Your task to perform on an android device: manage bookmarks in the chrome app Image 0: 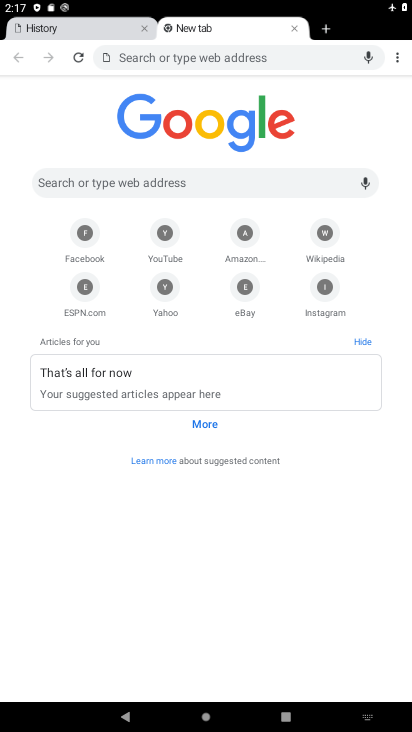
Step 0: press home button
Your task to perform on an android device: manage bookmarks in the chrome app Image 1: 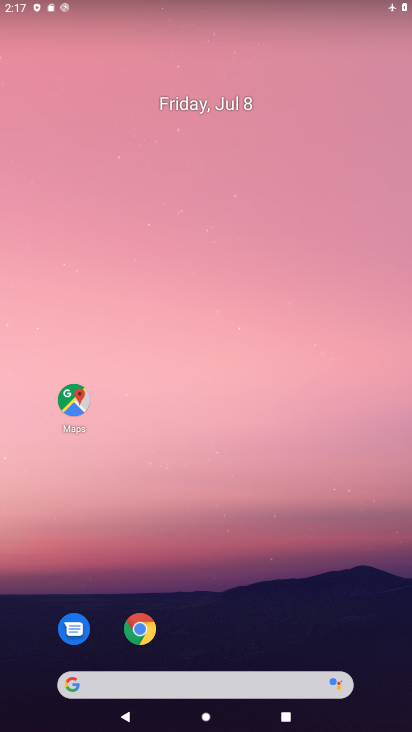
Step 1: click (132, 639)
Your task to perform on an android device: manage bookmarks in the chrome app Image 2: 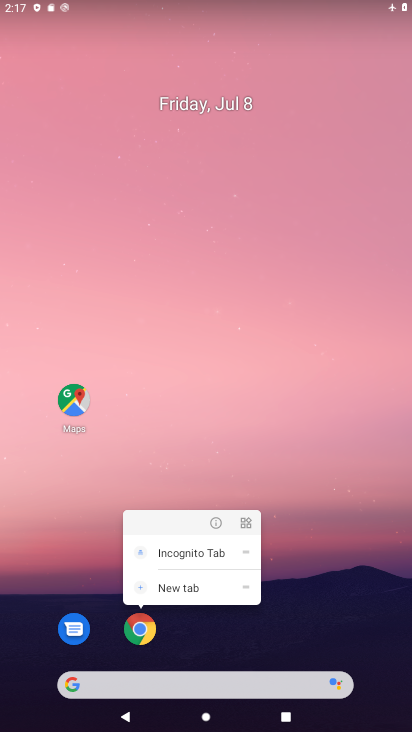
Step 2: click (130, 656)
Your task to perform on an android device: manage bookmarks in the chrome app Image 3: 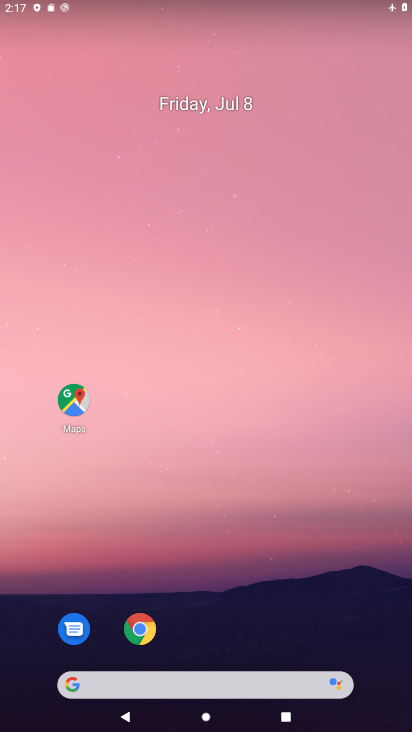
Step 3: click (149, 632)
Your task to perform on an android device: manage bookmarks in the chrome app Image 4: 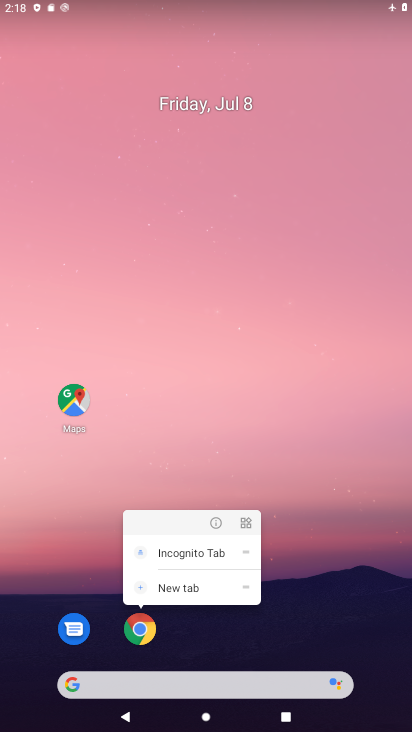
Step 4: click (137, 625)
Your task to perform on an android device: manage bookmarks in the chrome app Image 5: 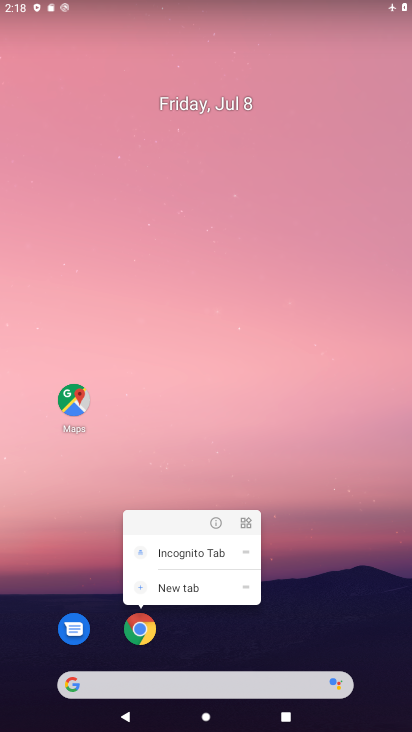
Step 5: click (136, 627)
Your task to perform on an android device: manage bookmarks in the chrome app Image 6: 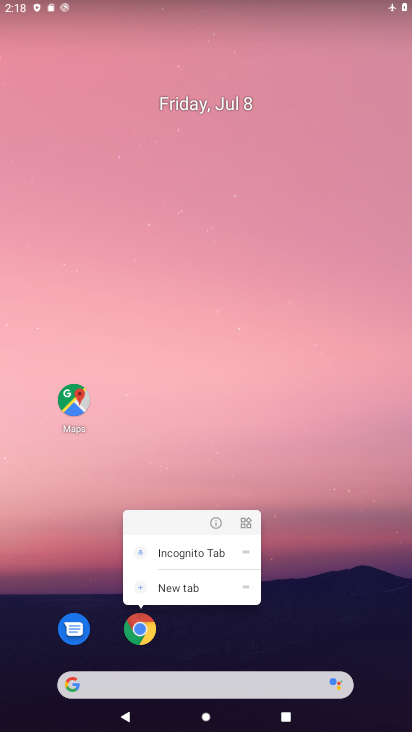
Step 6: click (136, 640)
Your task to perform on an android device: manage bookmarks in the chrome app Image 7: 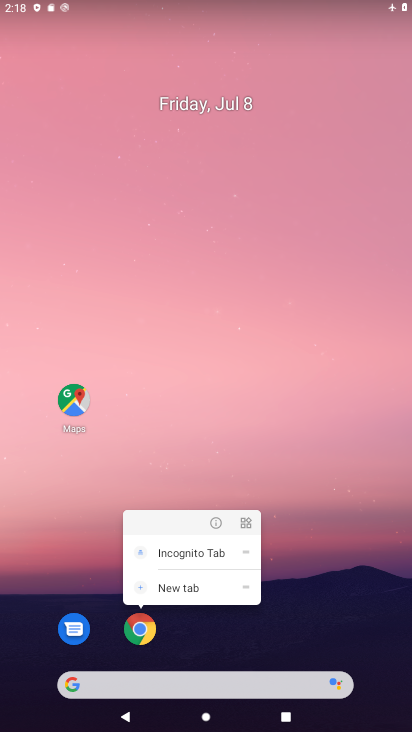
Step 7: task complete